Your task to perform on an android device: Open Google Chrome and open the bookmarks view Image 0: 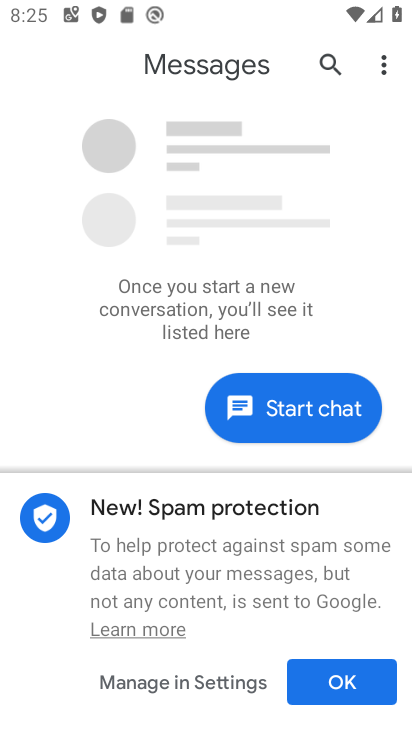
Step 0: press home button
Your task to perform on an android device: Open Google Chrome and open the bookmarks view Image 1: 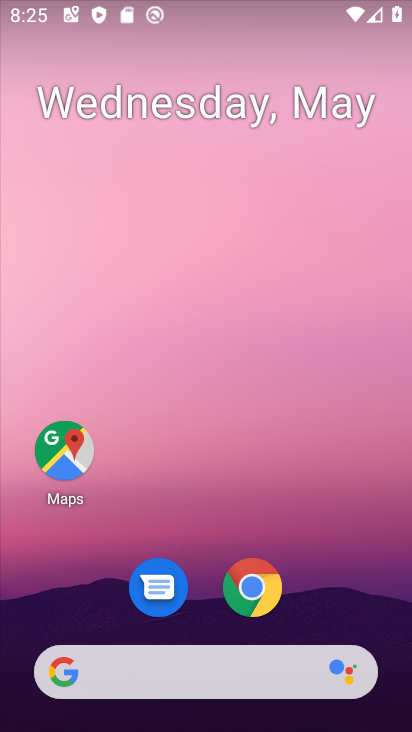
Step 1: click (257, 582)
Your task to perform on an android device: Open Google Chrome and open the bookmarks view Image 2: 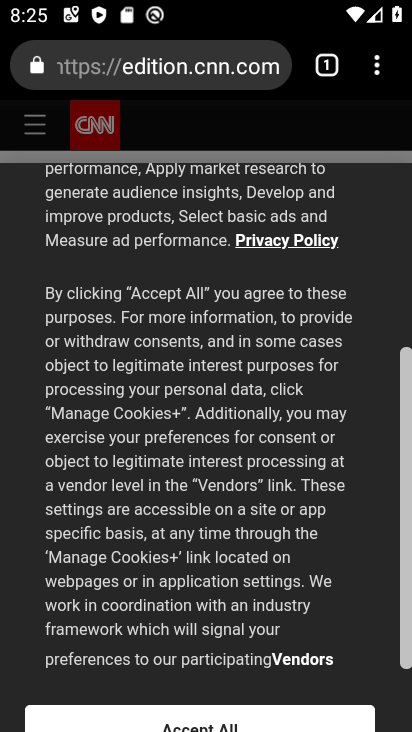
Step 2: click (377, 71)
Your task to perform on an android device: Open Google Chrome and open the bookmarks view Image 3: 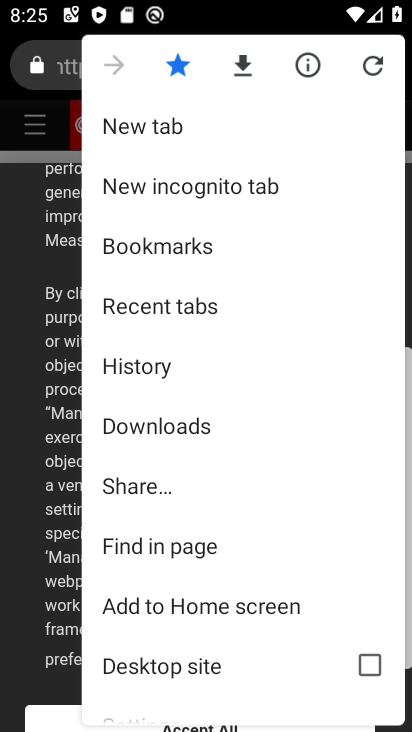
Step 3: click (140, 237)
Your task to perform on an android device: Open Google Chrome and open the bookmarks view Image 4: 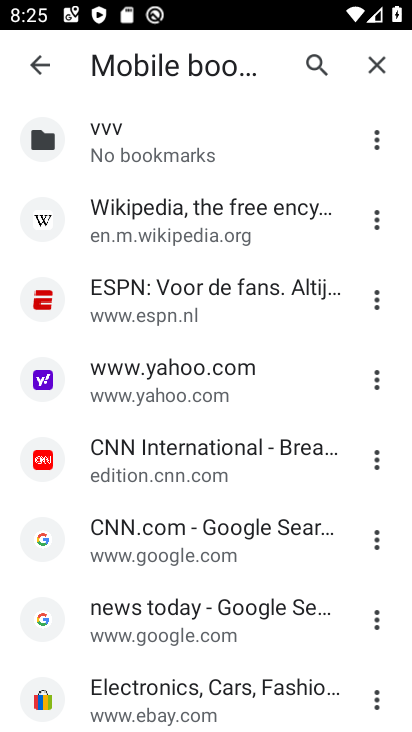
Step 4: task complete